Your task to perform on an android device: Open eBay Image 0: 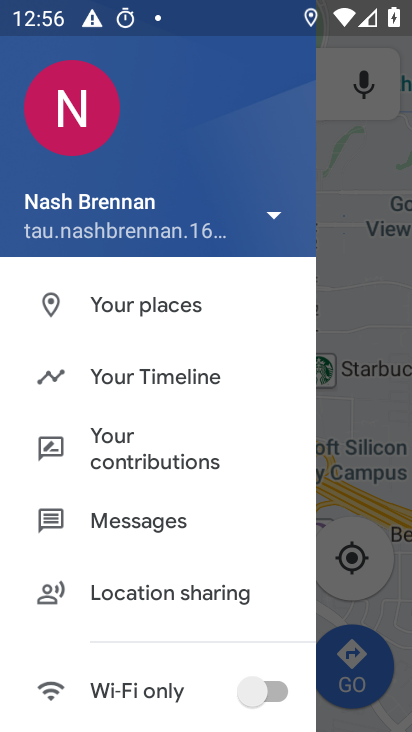
Step 0: press home button
Your task to perform on an android device: Open eBay Image 1: 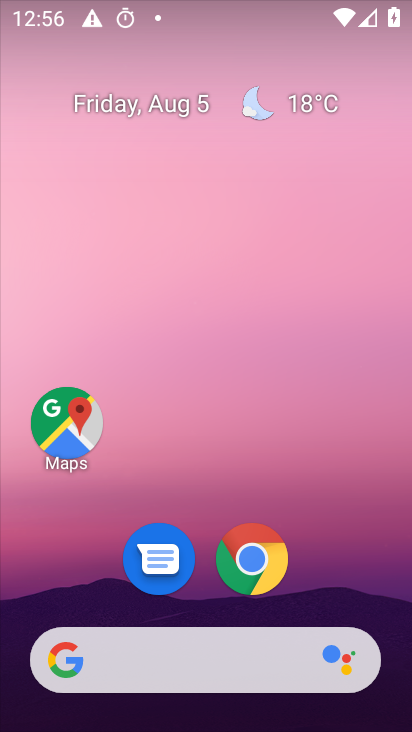
Step 1: click (127, 644)
Your task to perform on an android device: Open eBay Image 2: 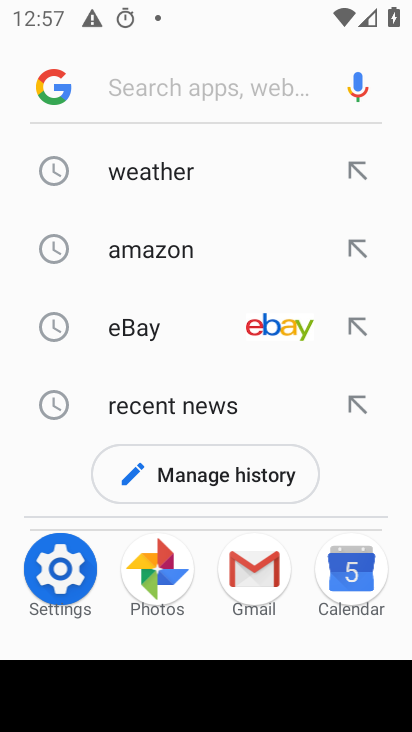
Step 2: click (162, 333)
Your task to perform on an android device: Open eBay Image 3: 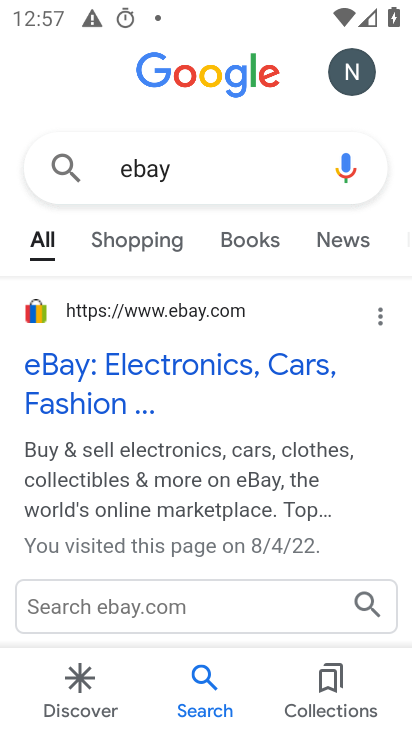
Step 3: task complete